Your task to perform on an android device: open chrome and create a bookmark for the current page Image 0: 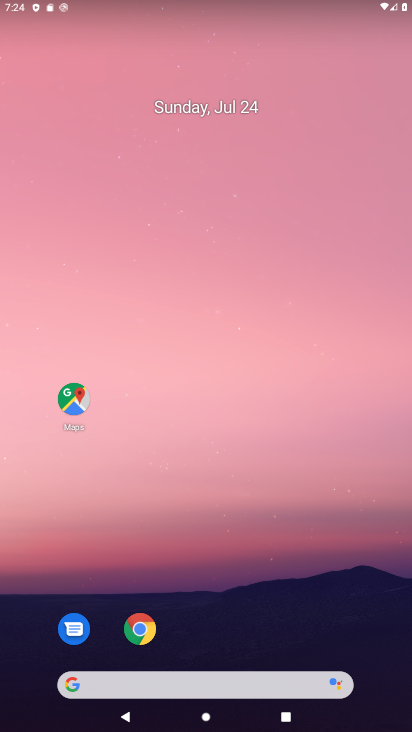
Step 0: drag from (370, 630) to (378, 146)
Your task to perform on an android device: open chrome and create a bookmark for the current page Image 1: 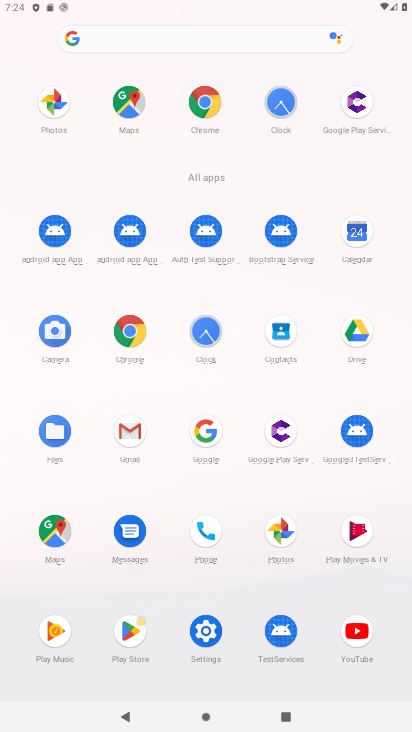
Step 1: click (131, 332)
Your task to perform on an android device: open chrome and create a bookmark for the current page Image 2: 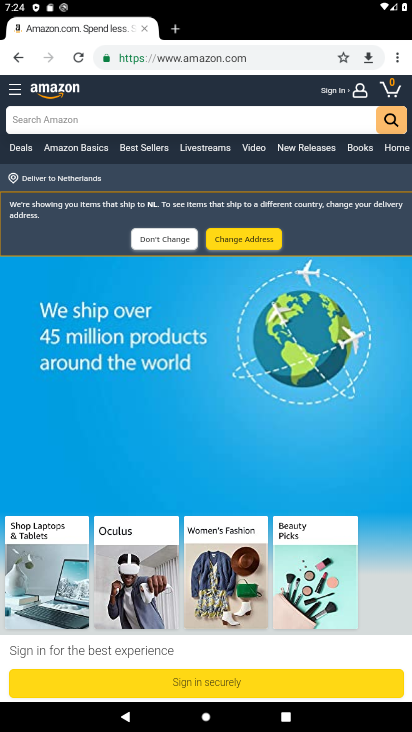
Step 2: click (346, 57)
Your task to perform on an android device: open chrome and create a bookmark for the current page Image 3: 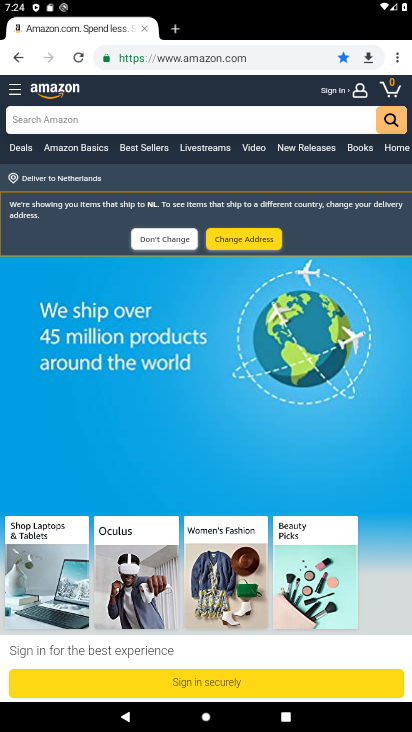
Step 3: task complete